Your task to perform on an android device: read, delete, or share a saved page in the chrome app Image 0: 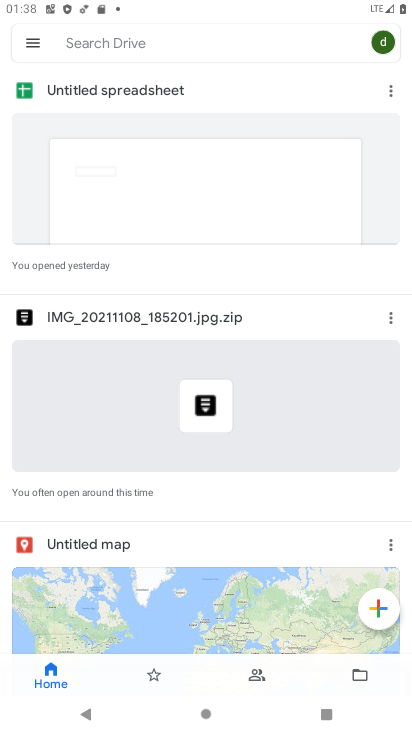
Step 0: press home button
Your task to perform on an android device: read, delete, or share a saved page in the chrome app Image 1: 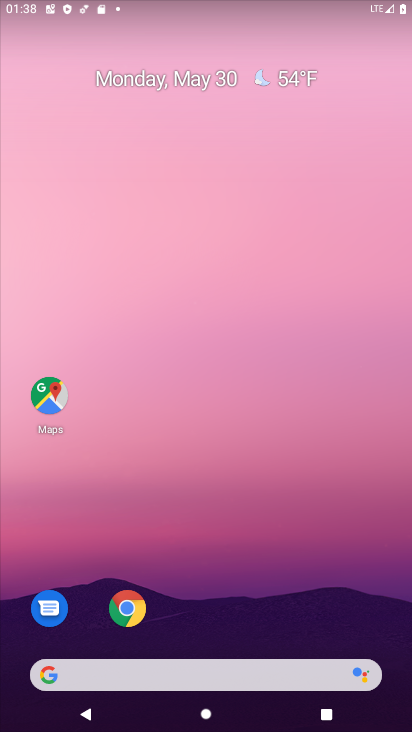
Step 1: drag from (256, 605) to (263, 257)
Your task to perform on an android device: read, delete, or share a saved page in the chrome app Image 2: 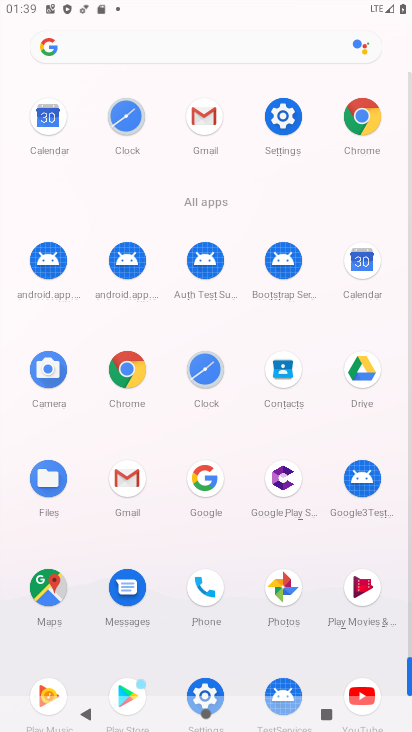
Step 2: click (124, 368)
Your task to perform on an android device: read, delete, or share a saved page in the chrome app Image 3: 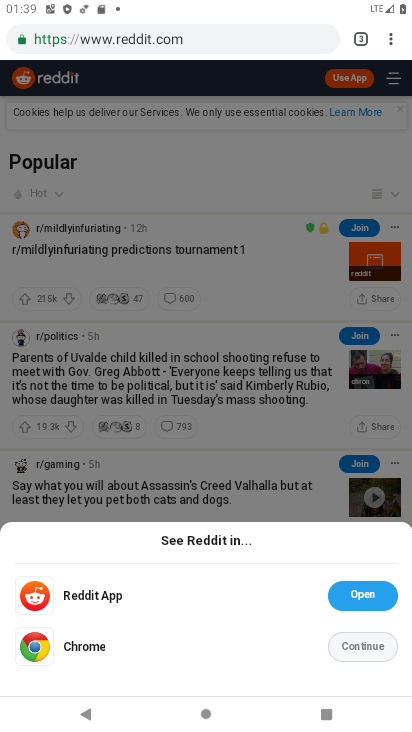
Step 3: click (383, 41)
Your task to perform on an android device: read, delete, or share a saved page in the chrome app Image 4: 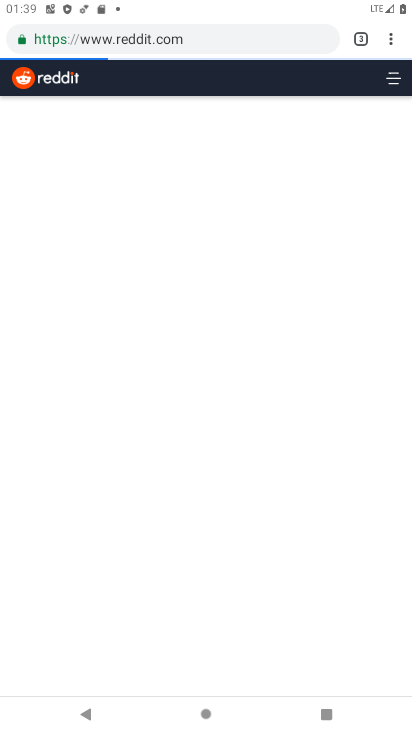
Step 4: click (392, 38)
Your task to perform on an android device: read, delete, or share a saved page in the chrome app Image 5: 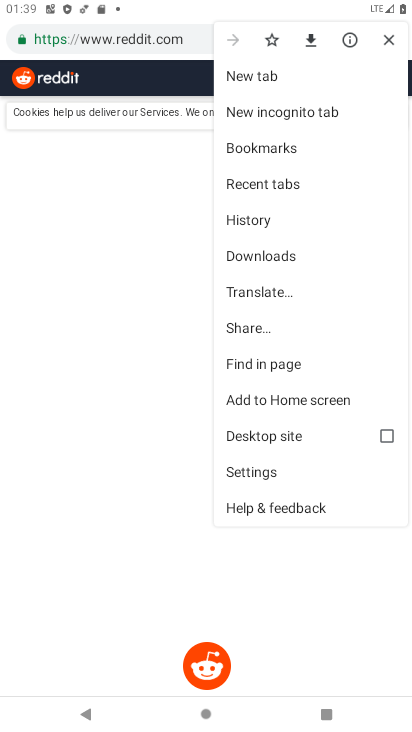
Step 5: drag from (285, 435) to (309, 261)
Your task to perform on an android device: read, delete, or share a saved page in the chrome app Image 6: 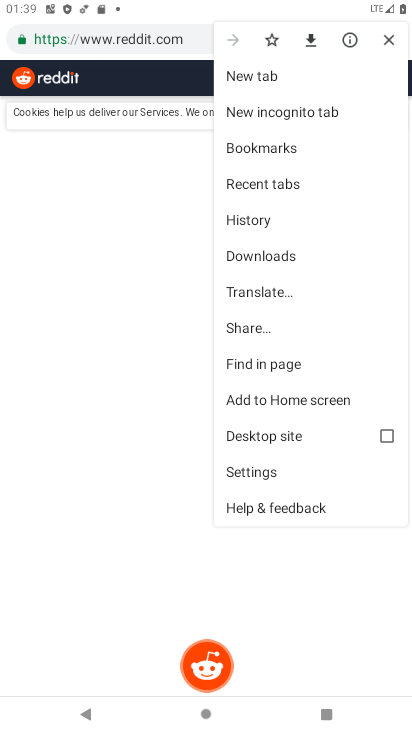
Step 6: click (274, 255)
Your task to perform on an android device: read, delete, or share a saved page in the chrome app Image 7: 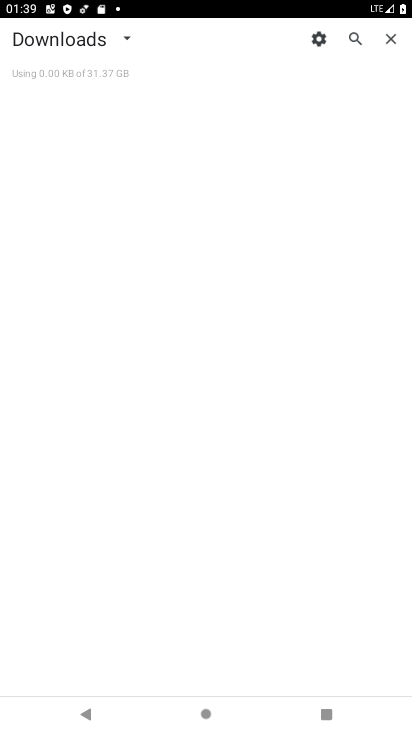
Step 7: click (129, 32)
Your task to perform on an android device: read, delete, or share a saved page in the chrome app Image 8: 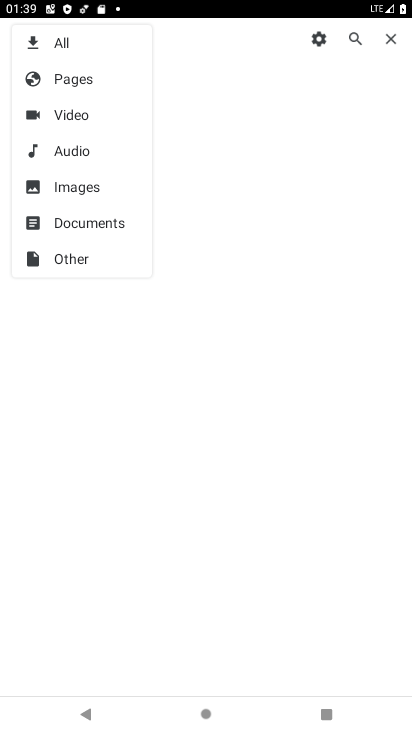
Step 8: click (81, 79)
Your task to perform on an android device: read, delete, or share a saved page in the chrome app Image 9: 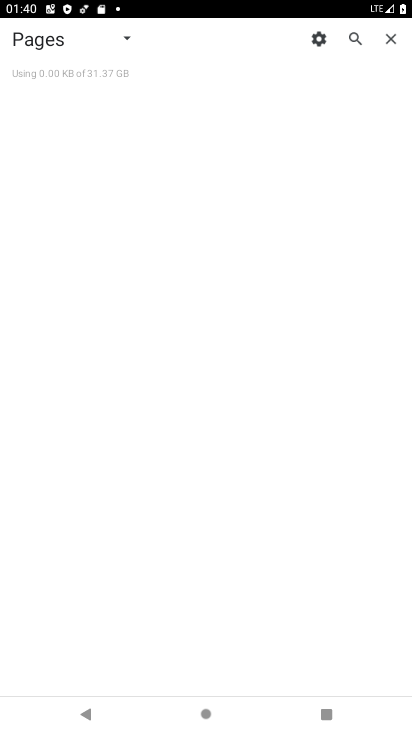
Step 9: task complete